Your task to perform on an android device: open app "LinkedIn" Image 0: 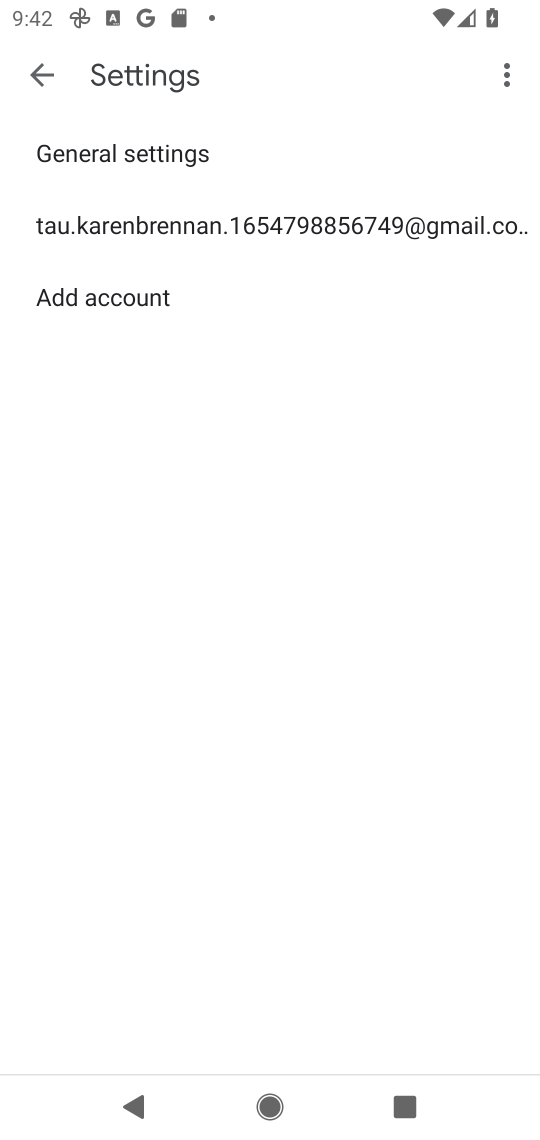
Step 0: press home button
Your task to perform on an android device: open app "LinkedIn" Image 1: 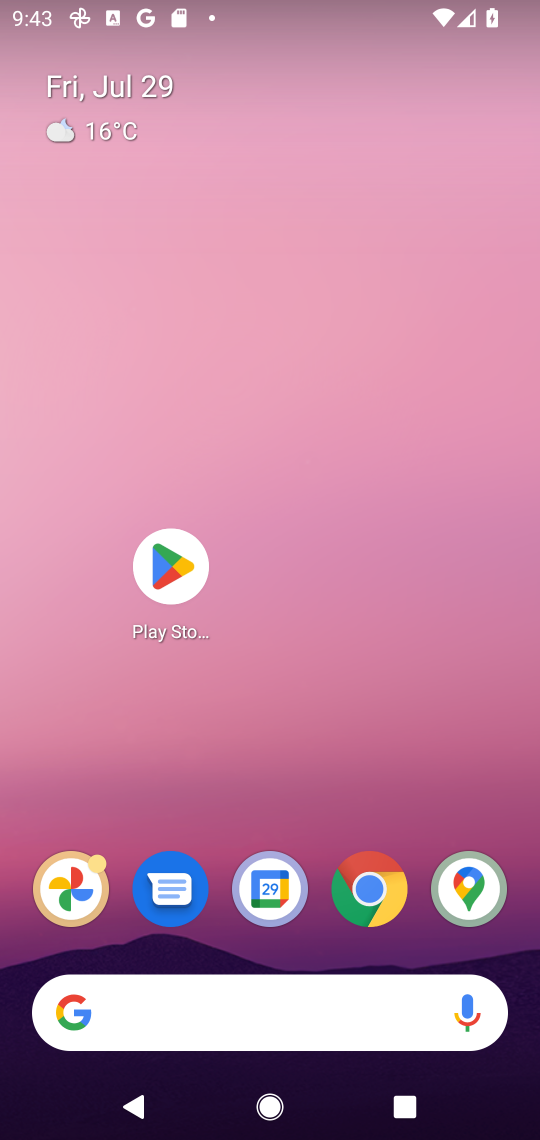
Step 1: click (165, 553)
Your task to perform on an android device: open app "LinkedIn" Image 2: 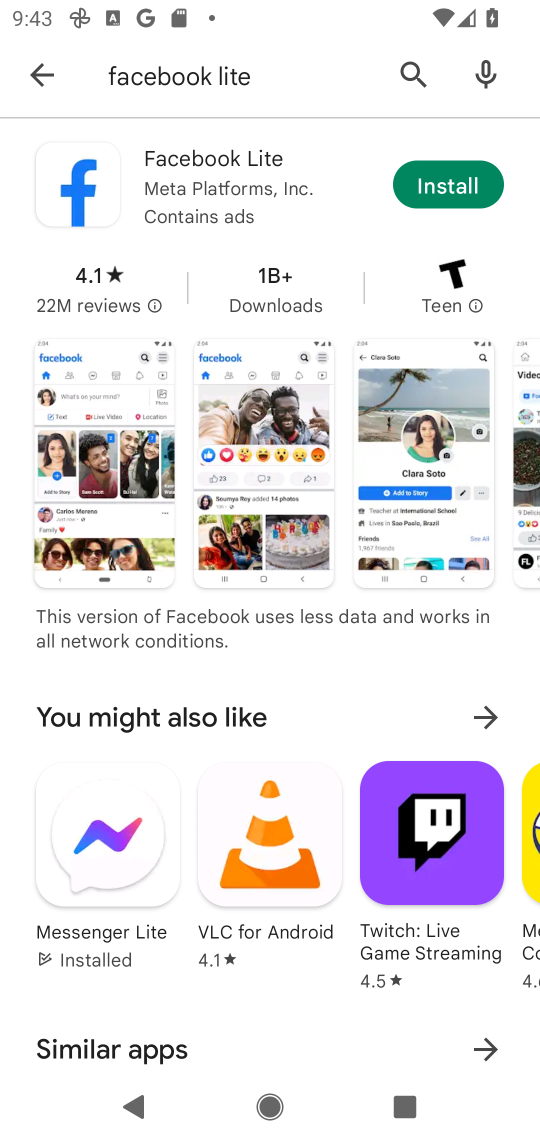
Step 2: click (404, 69)
Your task to perform on an android device: open app "LinkedIn" Image 3: 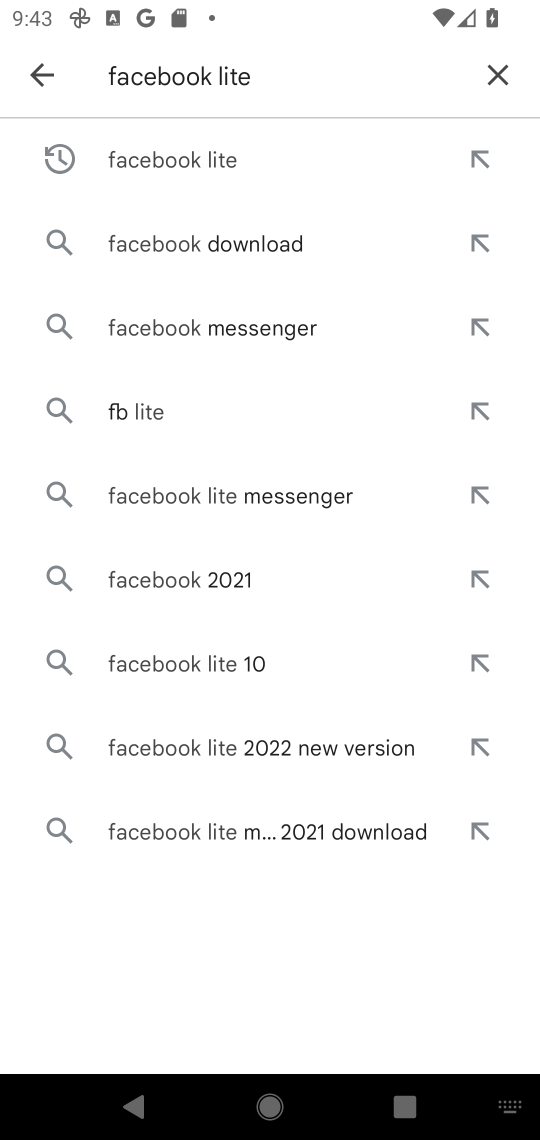
Step 3: click (485, 68)
Your task to perform on an android device: open app "LinkedIn" Image 4: 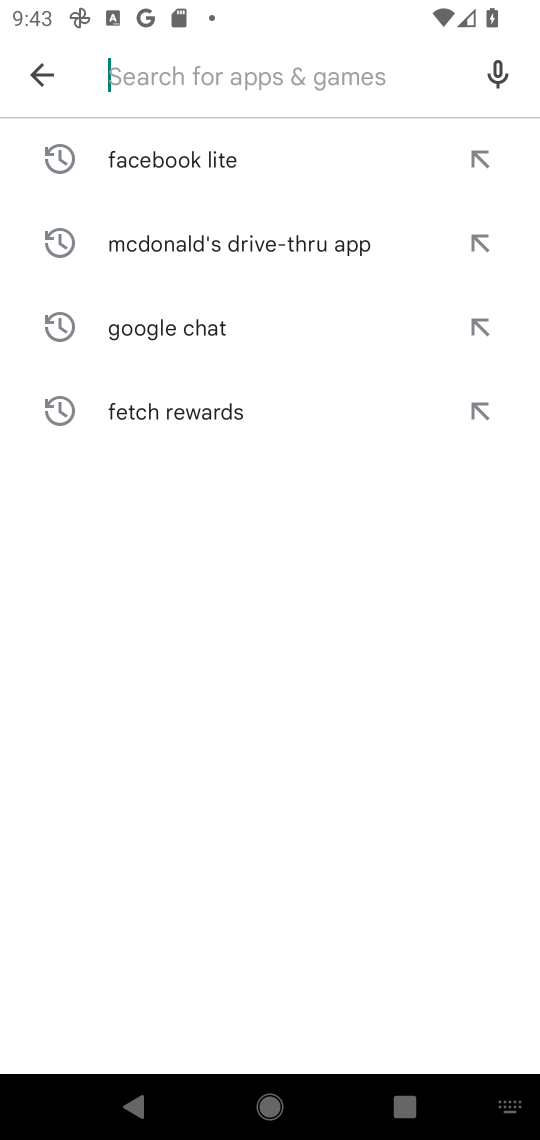
Step 4: type "LinkedIn"
Your task to perform on an android device: open app "LinkedIn" Image 5: 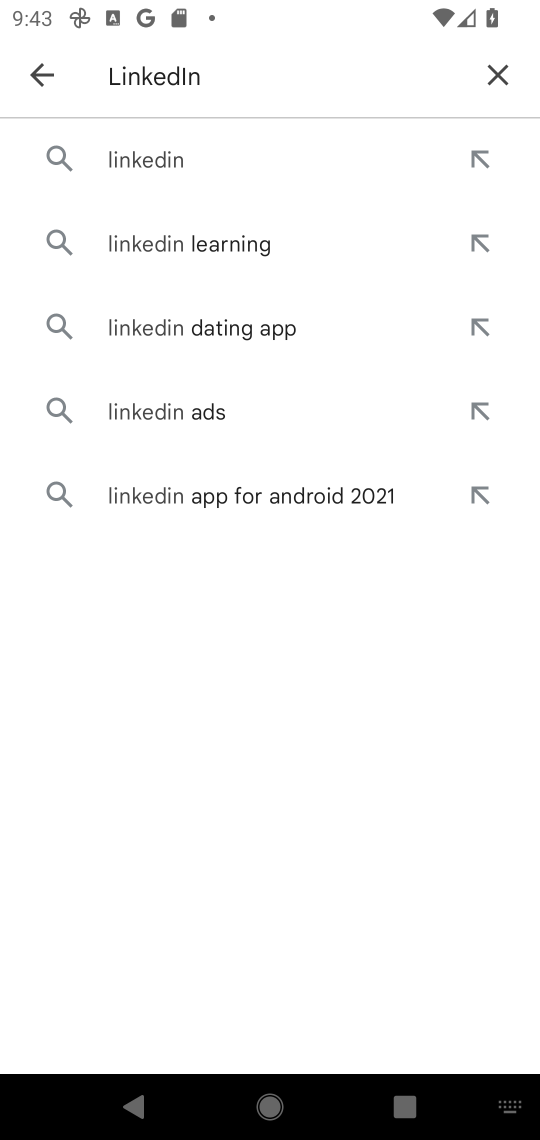
Step 5: click (170, 167)
Your task to perform on an android device: open app "LinkedIn" Image 6: 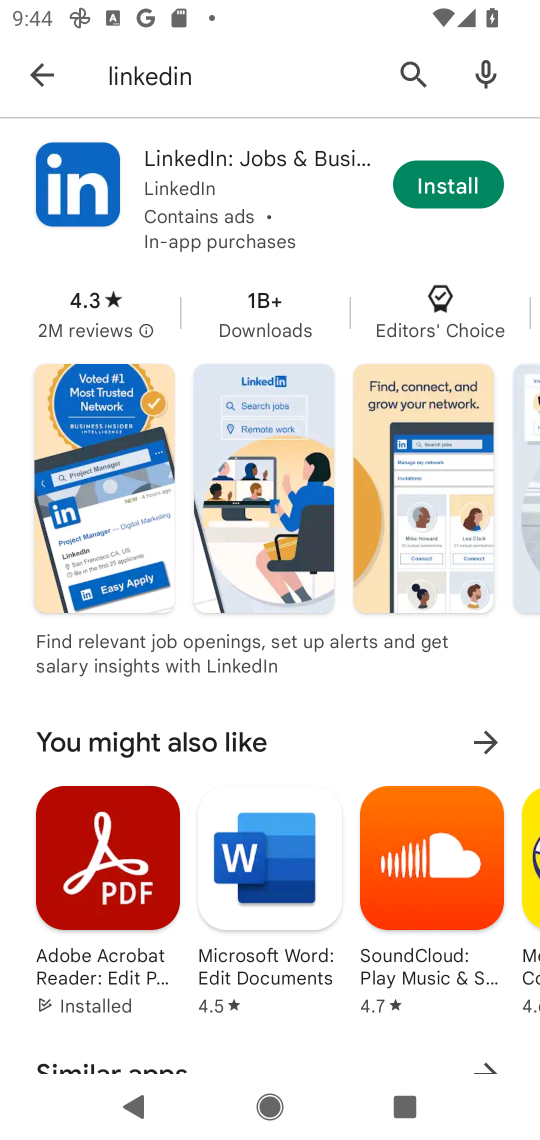
Step 6: task complete